Your task to perform on an android device: open chrome privacy settings Image 0: 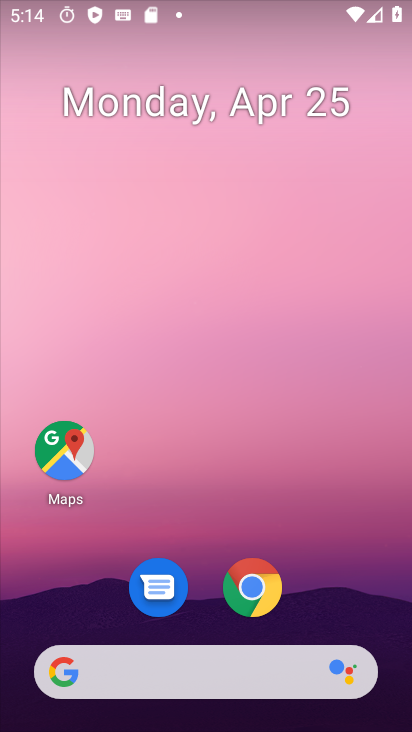
Step 0: drag from (356, 493) to (364, 38)
Your task to perform on an android device: open chrome privacy settings Image 1: 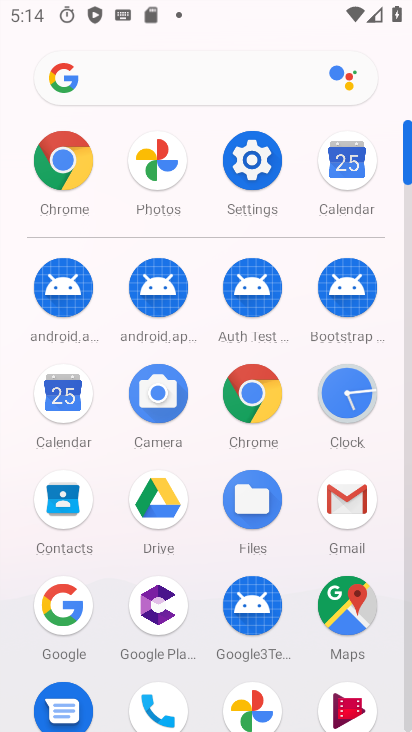
Step 1: click (260, 380)
Your task to perform on an android device: open chrome privacy settings Image 2: 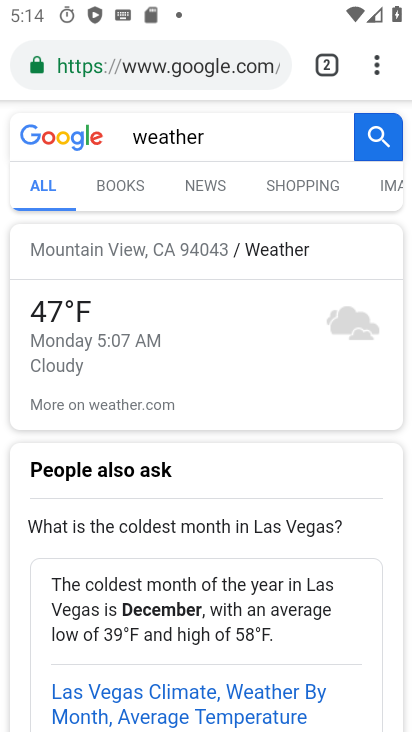
Step 2: drag from (375, 56) to (169, 629)
Your task to perform on an android device: open chrome privacy settings Image 3: 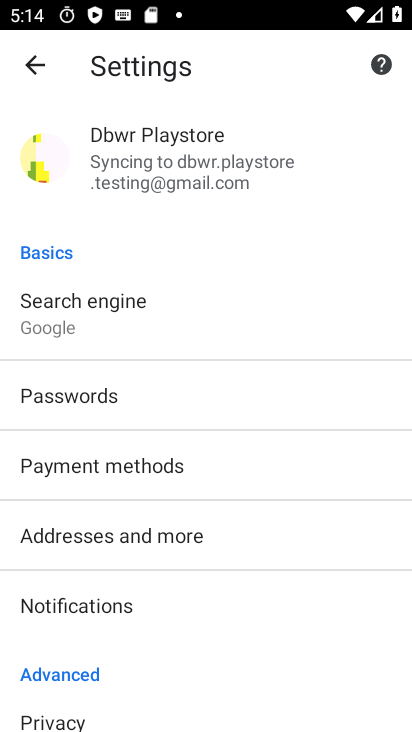
Step 3: drag from (215, 605) to (367, 93)
Your task to perform on an android device: open chrome privacy settings Image 4: 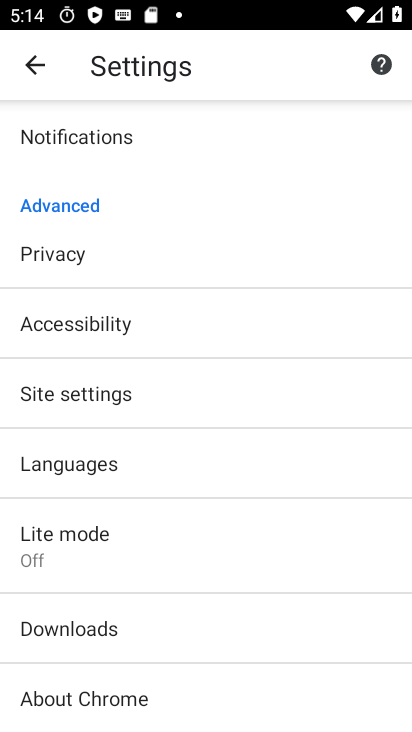
Step 4: drag from (211, 529) to (331, 179)
Your task to perform on an android device: open chrome privacy settings Image 5: 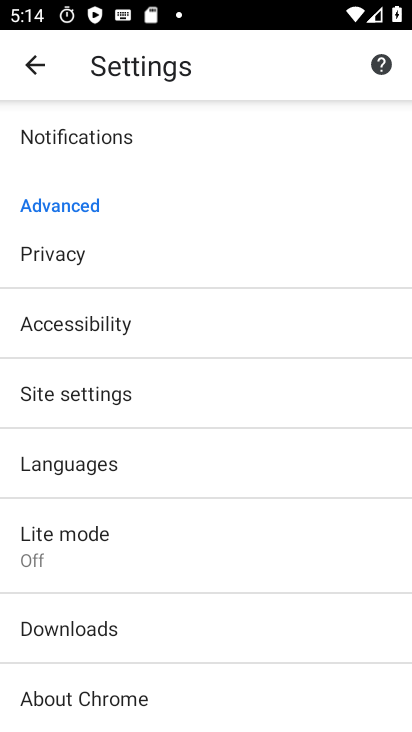
Step 5: drag from (149, 518) to (258, 227)
Your task to perform on an android device: open chrome privacy settings Image 6: 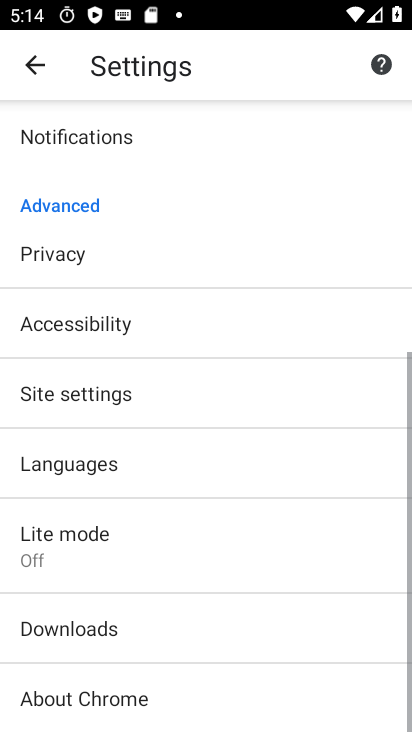
Step 6: drag from (92, 681) to (241, 349)
Your task to perform on an android device: open chrome privacy settings Image 7: 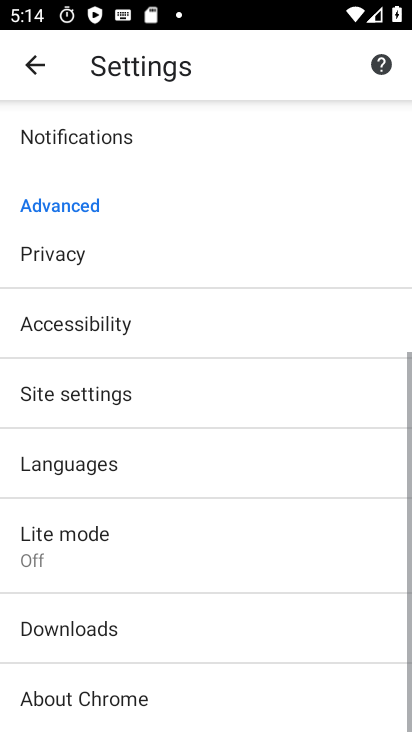
Step 7: click (82, 251)
Your task to perform on an android device: open chrome privacy settings Image 8: 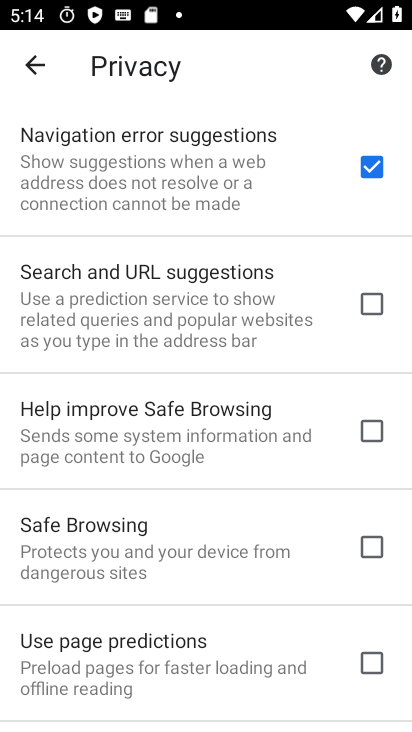
Step 8: task complete